Your task to perform on an android device: Go to settings Image 0: 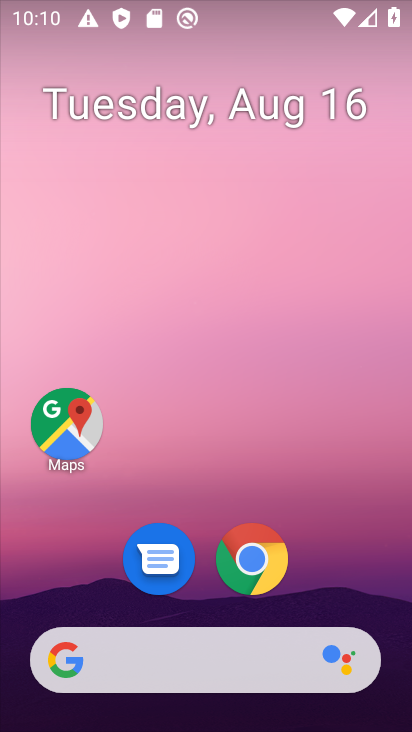
Step 0: drag from (222, 59) to (231, 8)
Your task to perform on an android device: Go to settings Image 1: 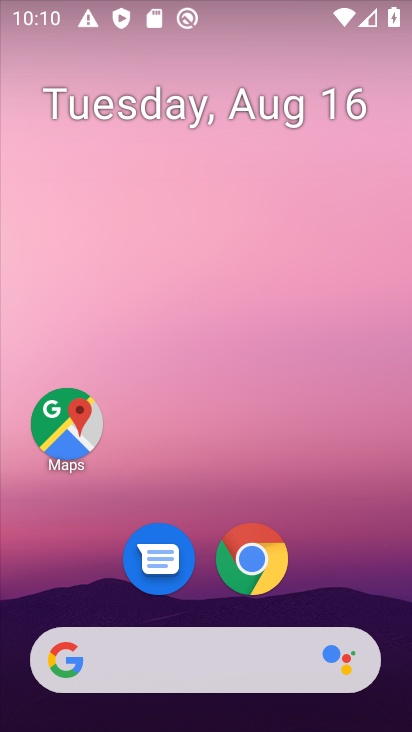
Step 1: drag from (206, 598) to (186, 50)
Your task to perform on an android device: Go to settings Image 2: 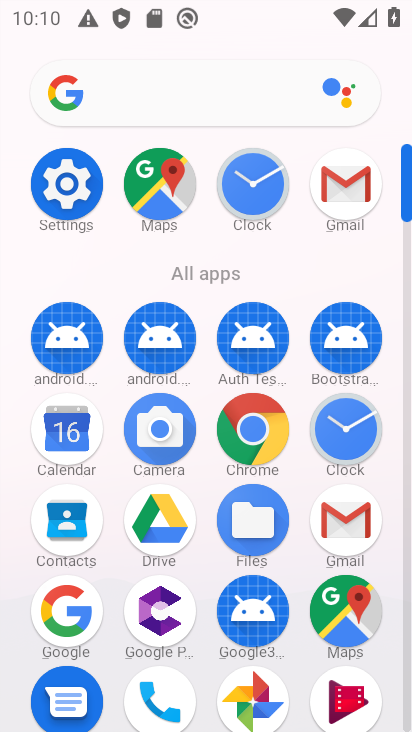
Step 2: click (67, 188)
Your task to perform on an android device: Go to settings Image 3: 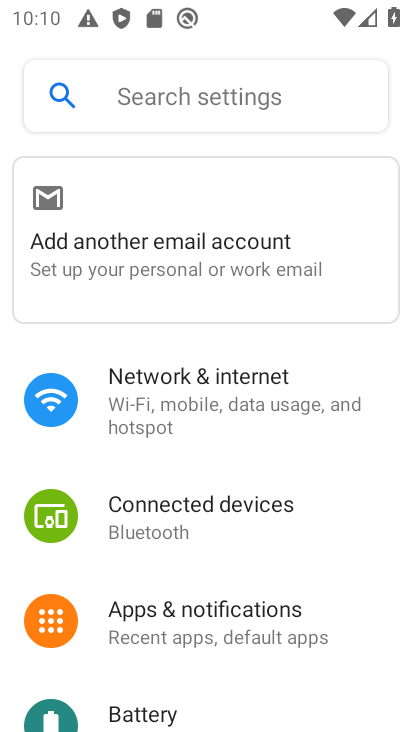
Step 3: task complete